Your task to perform on an android device: Go to Android settings Image 0: 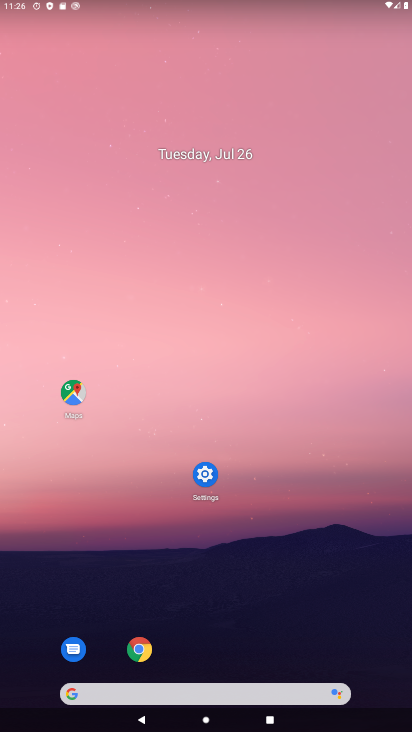
Step 0: click (129, 215)
Your task to perform on an android device: Go to Android settings Image 1: 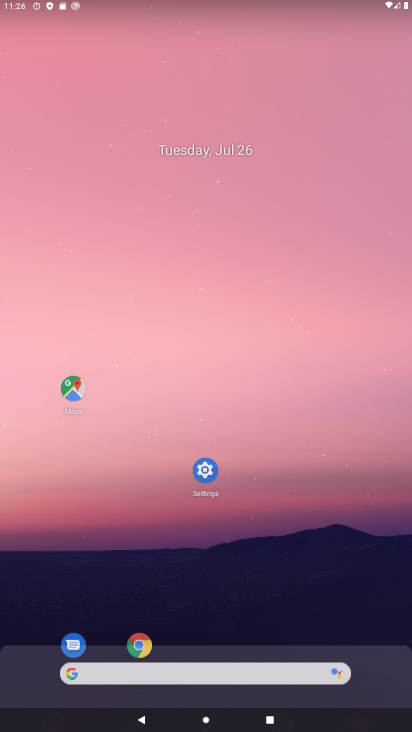
Step 1: drag from (112, 467) to (238, 43)
Your task to perform on an android device: Go to Android settings Image 2: 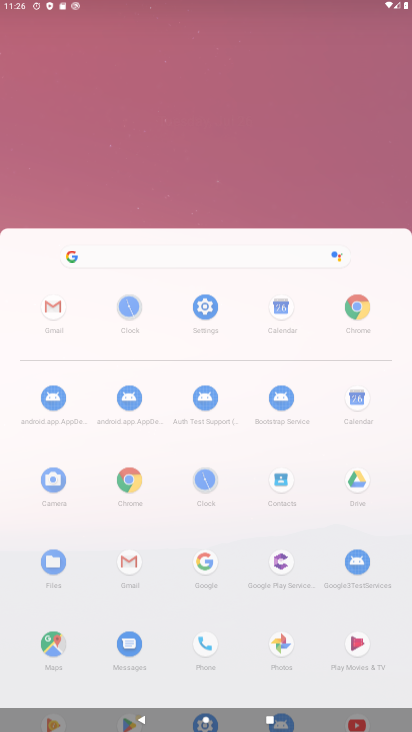
Step 2: drag from (251, 610) to (254, 269)
Your task to perform on an android device: Go to Android settings Image 3: 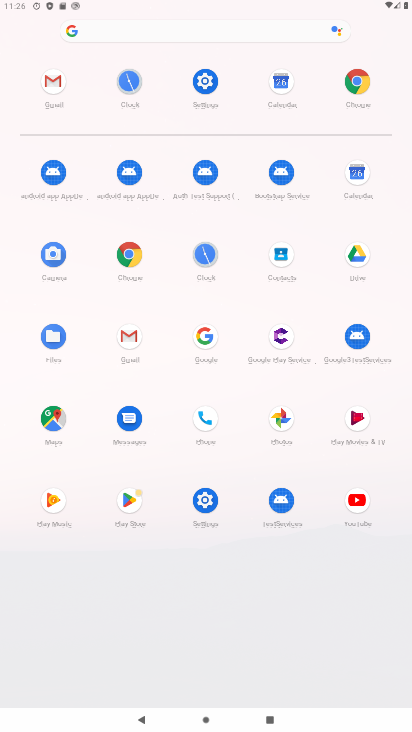
Step 3: click (192, 497)
Your task to perform on an android device: Go to Android settings Image 4: 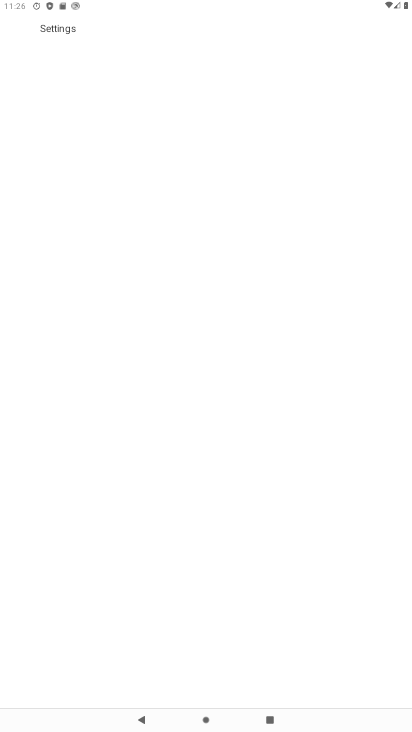
Step 4: click (196, 485)
Your task to perform on an android device: Go to Android settings Image 5: 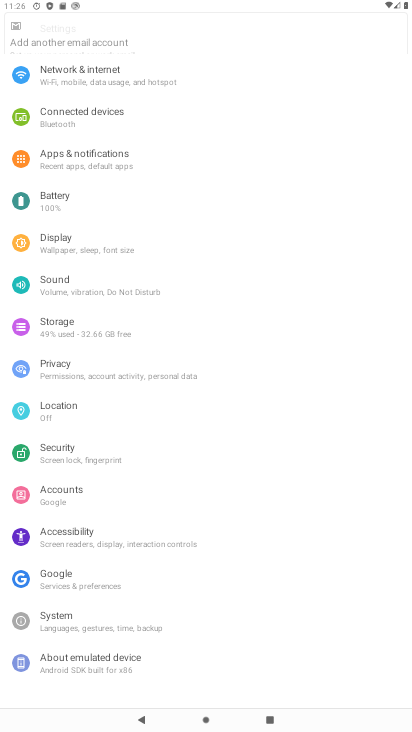
Step 5: click (196, 483)
Your task to perform on an android device: Go to Android settings Image 6: 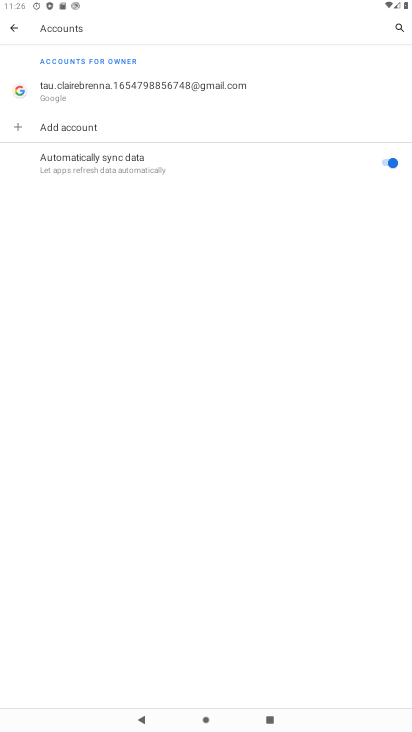
Step 6: click (17, 19)
Your task to perform on an android device: Go to Android settings Image 7: 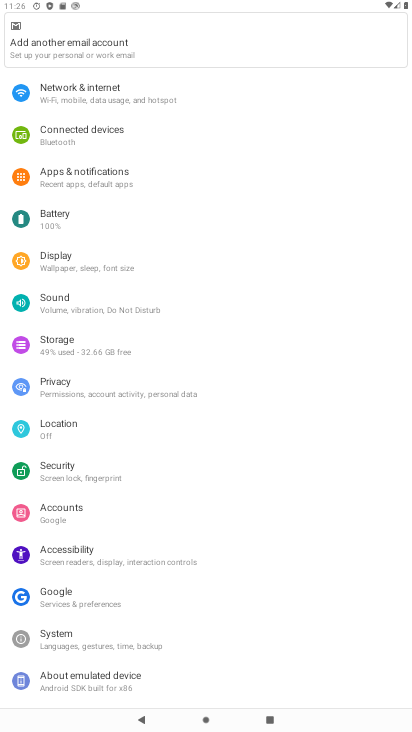
Step 7: click (74, 666)
Your task to perform on an android device: Go to Android settings Image 8: 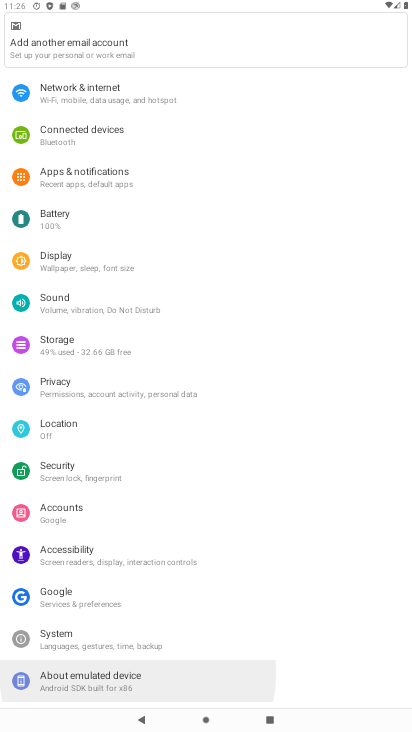
Step 8: click (74, 666)
Your task to perform on an android device: Go to Android settings Image 9: 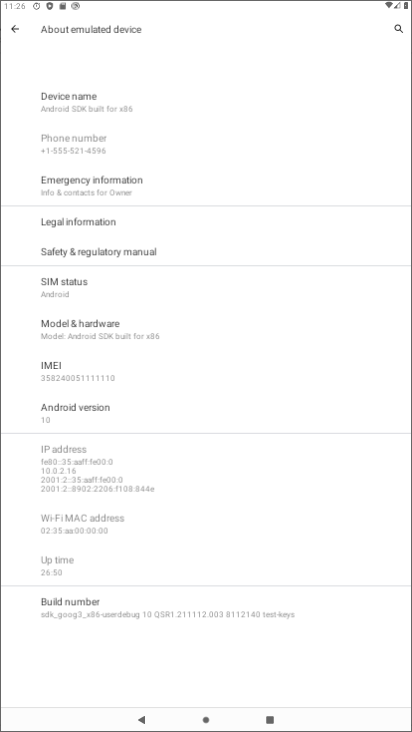
Step 9: click (74, 666)
Your task to perform on an android device: Go to Android settings Image 10: 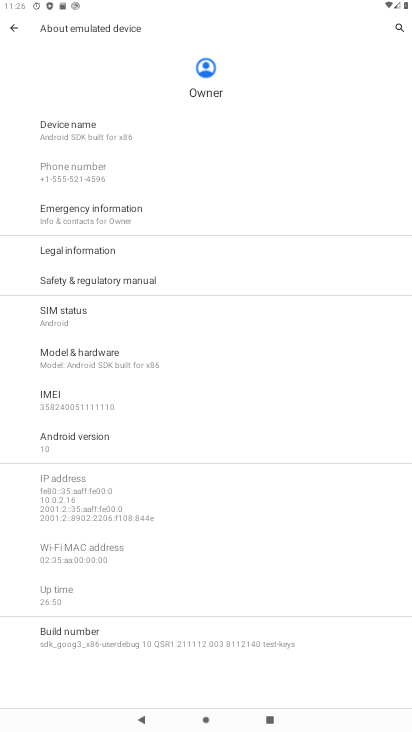
Step 10: click (74, 666)
Your task to perform on an android device: Go to Android settings Image 11: 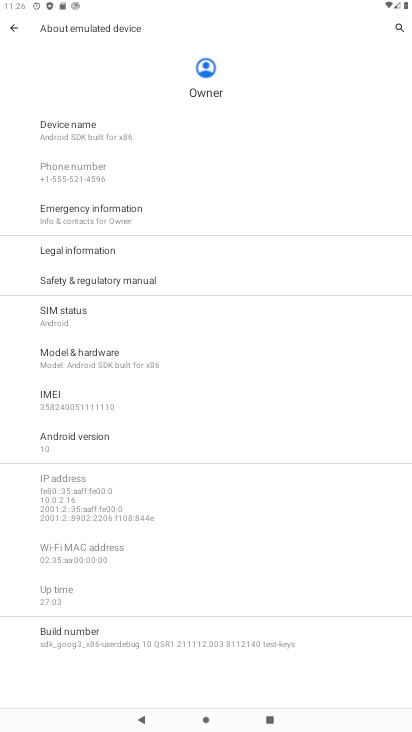
Step 11: click (85, 627)
Your task to perform on an android device: Go to Android settings Image 12: 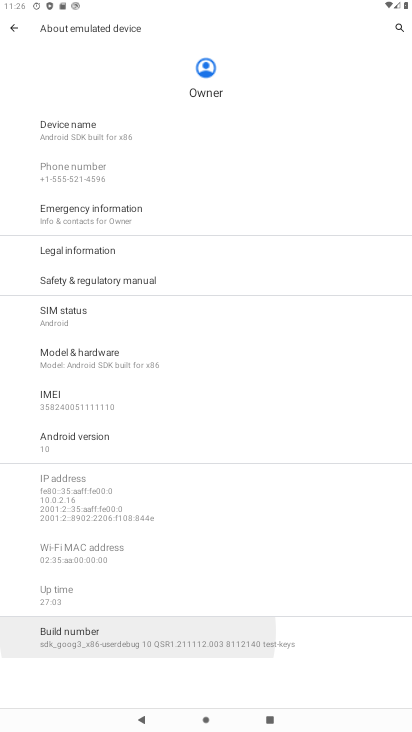
Step 12: click (79, 618)
Your task to perform on an android device: Go to Android settings Image 13: 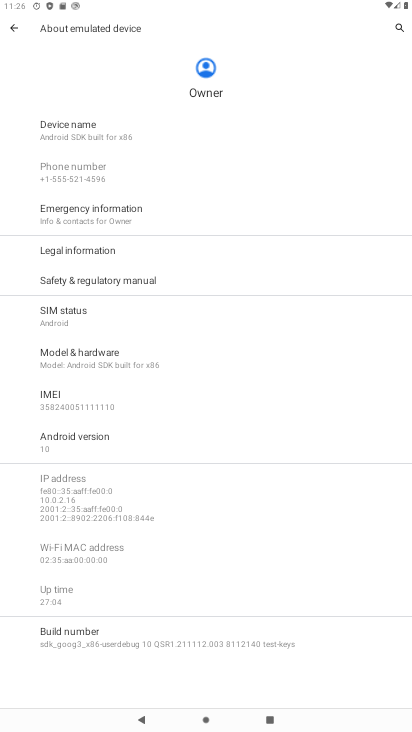
Step 13: task complete